Your task to perform on an android device: toggle notification dots Image 0: 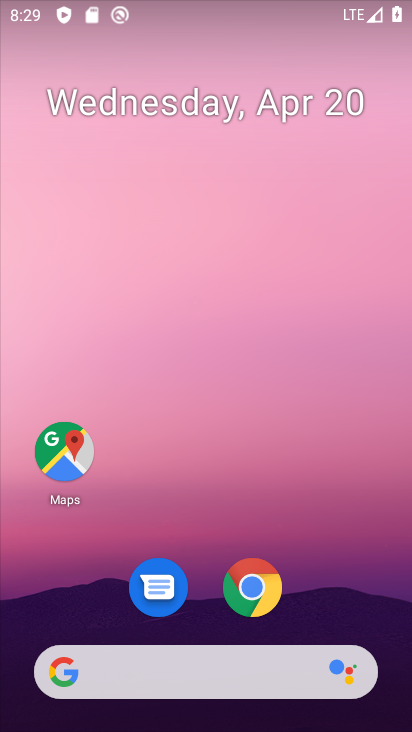
Step 0: drag from (345, 482) to (345, 245)
Your task to perform on an android device: toggle notification dots Image 1: 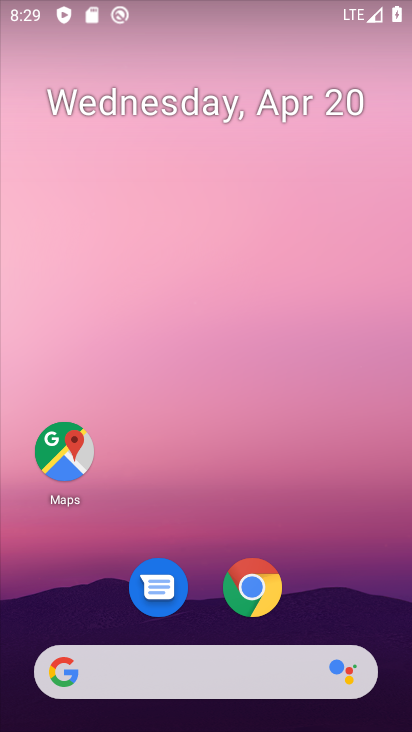
Step 1: drag from (334, 558) to (319, 182)
Your task to perform on an android device: toggle notification dots Image 2: 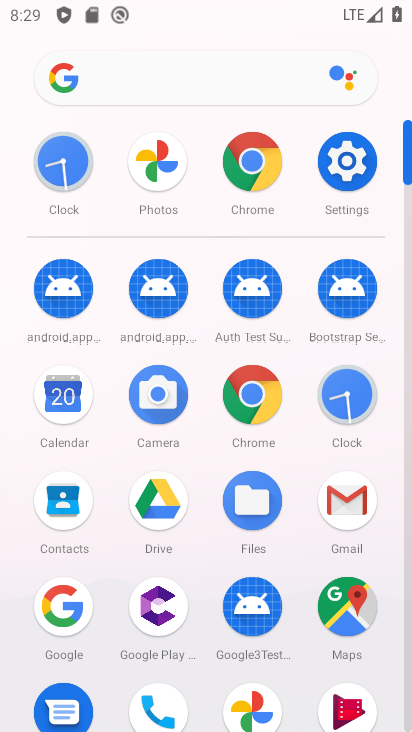
Step 2: click (344, 169)
Your task to perform on an android device: toggle notification dots Image 3: 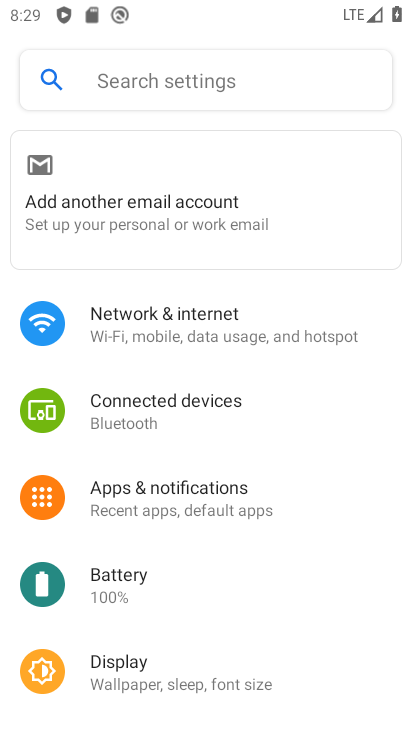
Step 3: drag from (362, 580) to (351, 420)
Your task to perform on an android device: toggle notification dots Image 4: 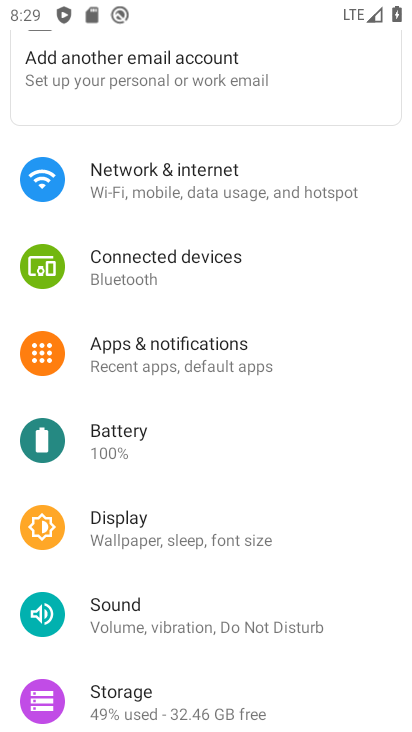
Step 4: drag from (360, 611) to (351, 417)
Your task to perform on an android device: toggle notification dots Image 5: 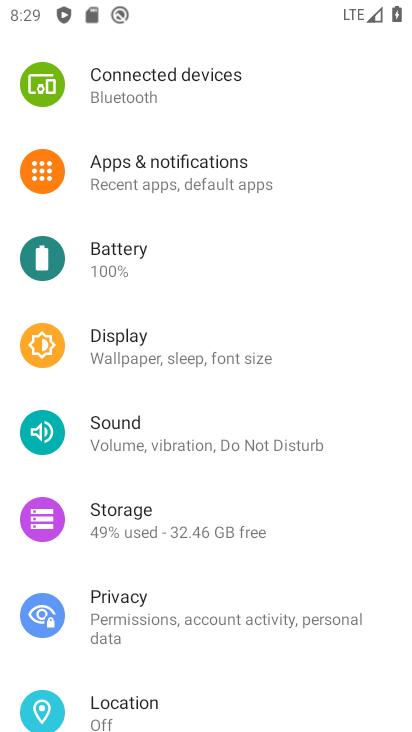
Step 5: drag from (369, 654) to (370, 470)
Your task to perform on an android device: toggle notification dots Image 6: 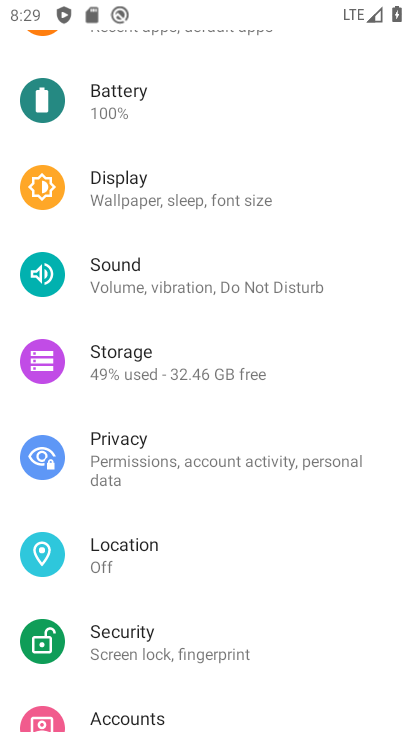
Step 6: drag from (365, 627) to (376, 475)
Your task to perform on an android device: toggle notification dots Image 7: 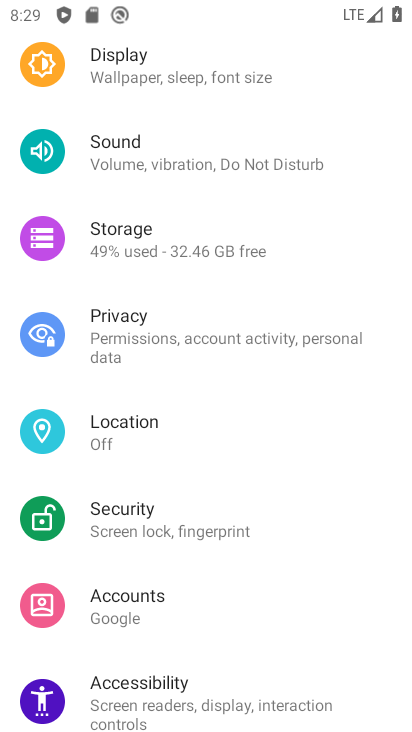
Step 7: drag from (349, 652) to (346, 513)
Your task to perform on an android device: toggle notification dots Image 8: 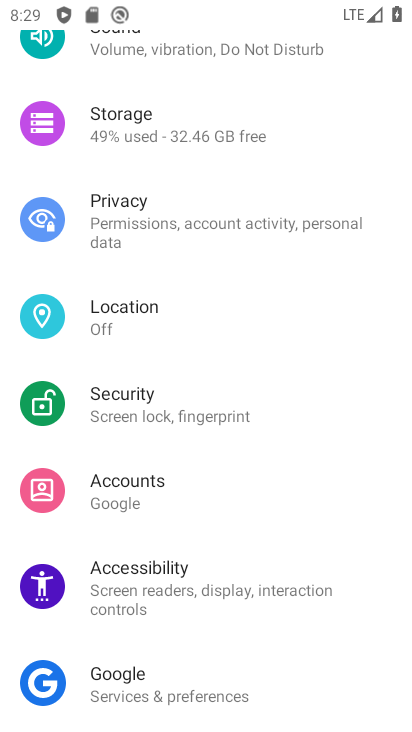
Step 8: drag from (346, 654) to (368, 448)
Your task to perform on an android device: toggle notification dots Image 9: 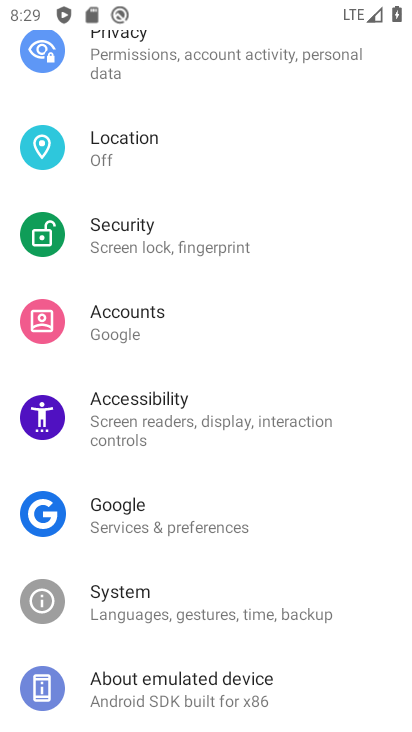
Step 9: drag from (355, 661) to (357, 497)
Your task to perform on an android device: toggle notification dots Image 10: 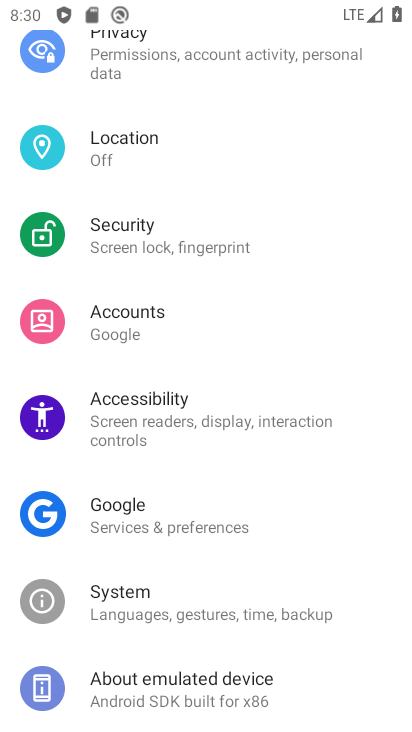
Step 10: drag from (376, 331) to (378, 498)
Your task to perform on an android device: toggle notification dots Image 11: 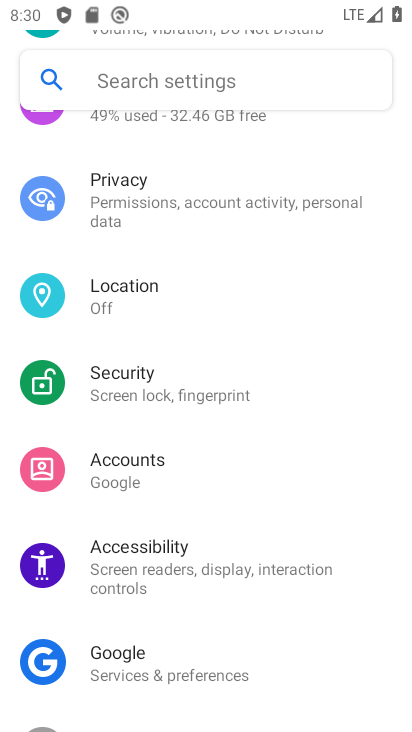
Step 11: drag from (375, 293) to (384, 452)
Your task to perform on an android device: toggle notification dots Image 12: 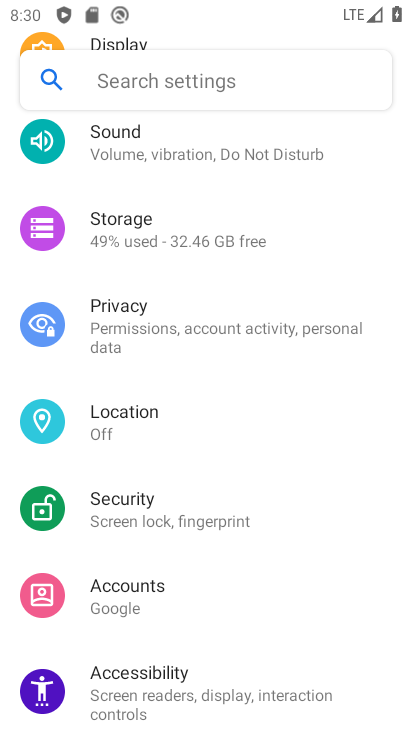
Step 12: drag from (387, 275) to (375, 471)
Your task to perform on an android device: toggle notification dots Image 13: 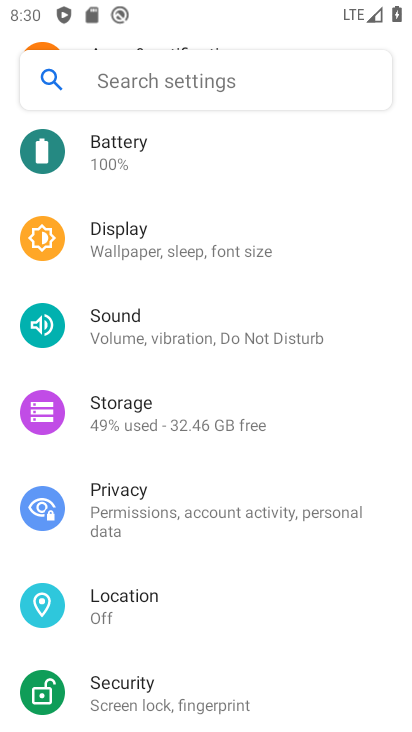
Step 13: drag from (381, 292) to (344, 476)
Your task to perform on an android device: toggle notification dots Image 14: 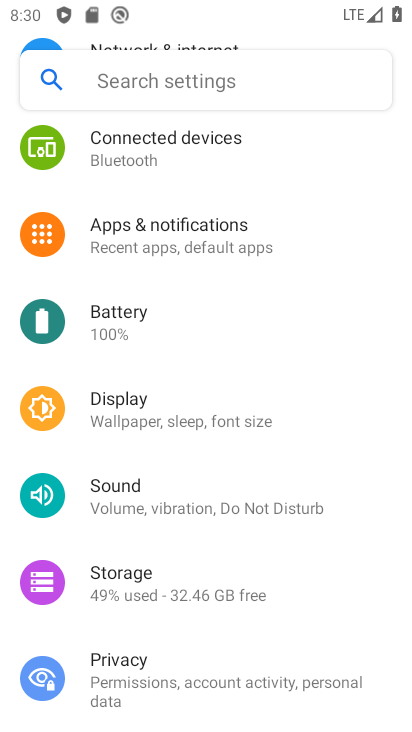
Step 14: drag from (352, 282) to (343, 426)
Your task to perform on an android device: toggle notification dots Image 15: 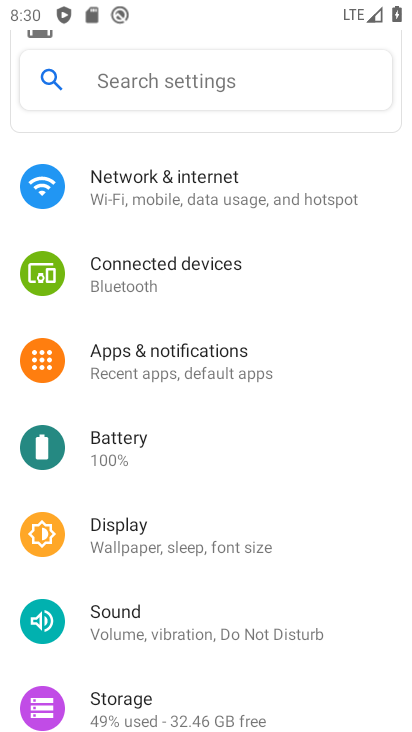
Step 15: click (240, 362)
Your task to perform on an android device: toggle notification dots Image 16: 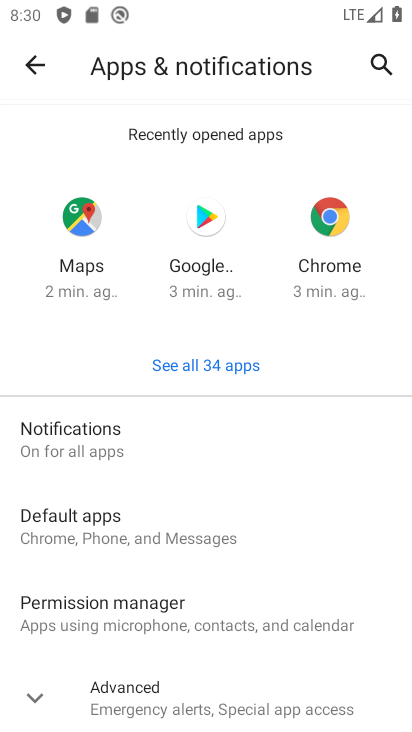
Step 16: click (92, 457)
Your task to perform on an android device: toggle notification dots Image 17: 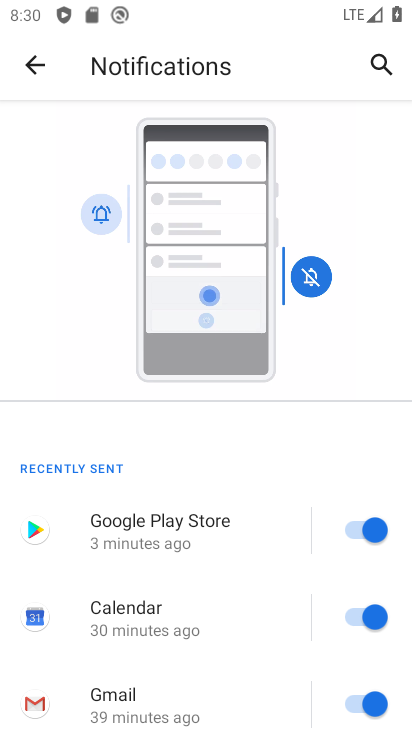
Step 17: drag from (279, 569) to (299, 368)
Your task to perform on an android device: toggle notification dots Image 18: 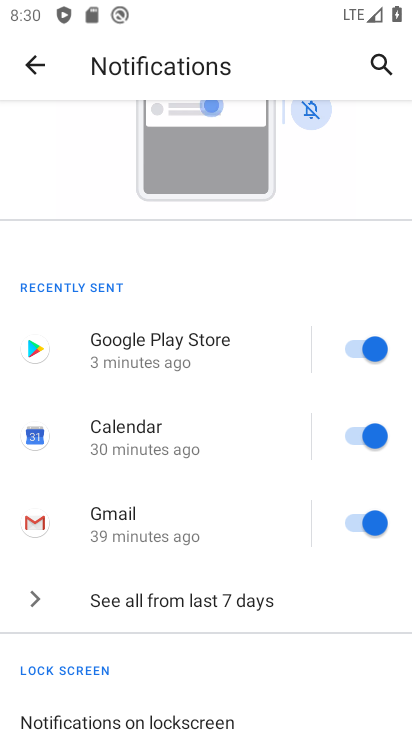
Step 18: drag from (270, 547) to (276, 332)
Your task to perform on an android device: toggle notification dots Image 19: 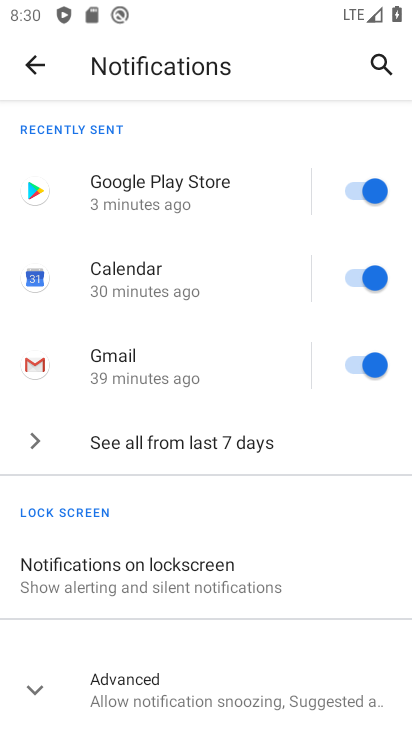
Step 19: click (248, 685)
Your task to perform on an android device: toggle notification dots Image 20: 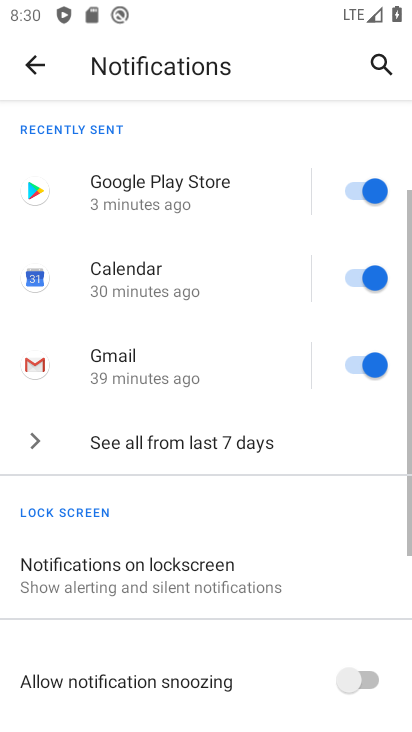
Step 20: drag from (288, 643) to (291, 485)
Your task to perform on an android device: toggle notification dots Image 21: 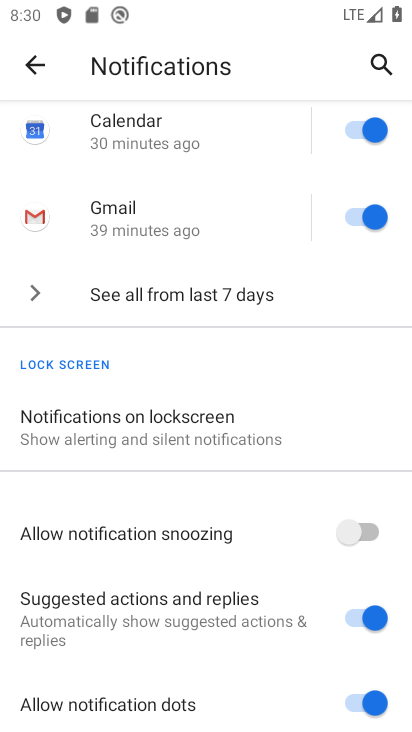
Step 21: drag from (283, 654) to (290, 440)
Your task to perform on an android device: toggle notification dots Image 22: 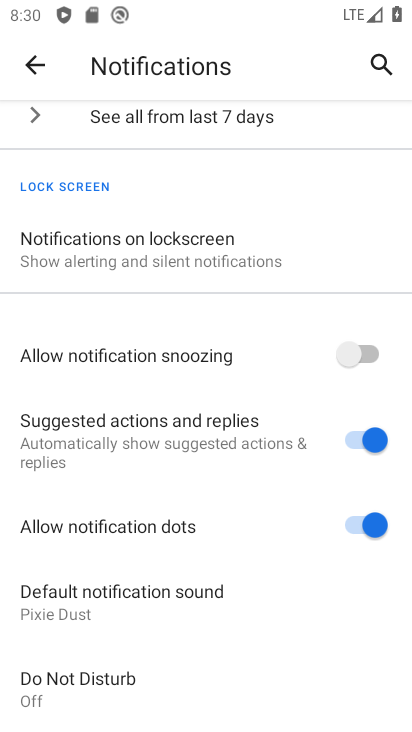
Step 22: drag from (277, 594) to (275, 476)
Your task to perform on an android device: toggle notification dots Image 23: 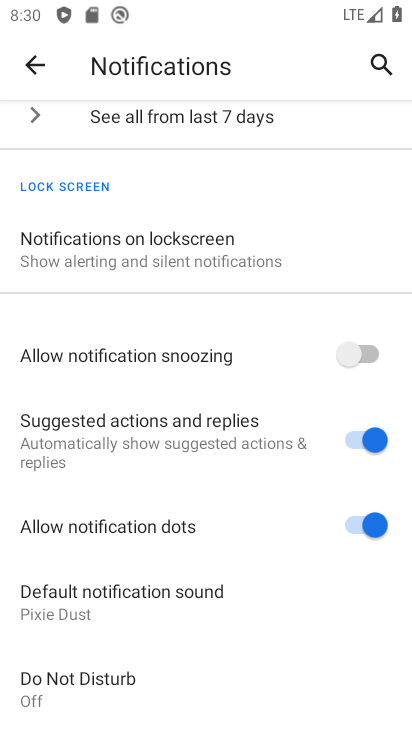
Step 23: click (348, 524)
Your task to perform on an android device: toggle notification dots Image 24: 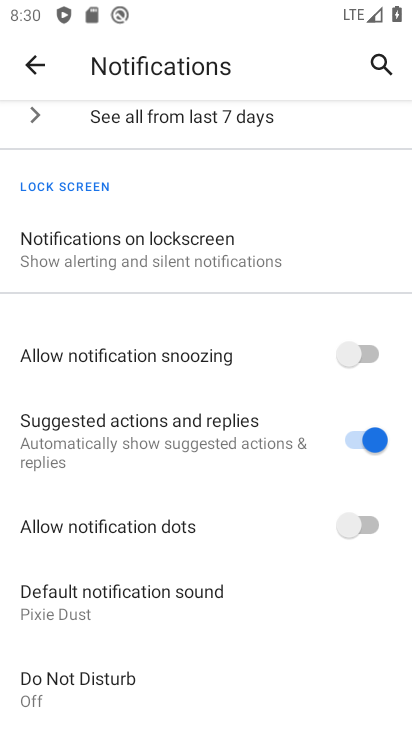
Step 24: task complete